Your task to perform on an android device: turn pop-ups off in chrome Image 0: 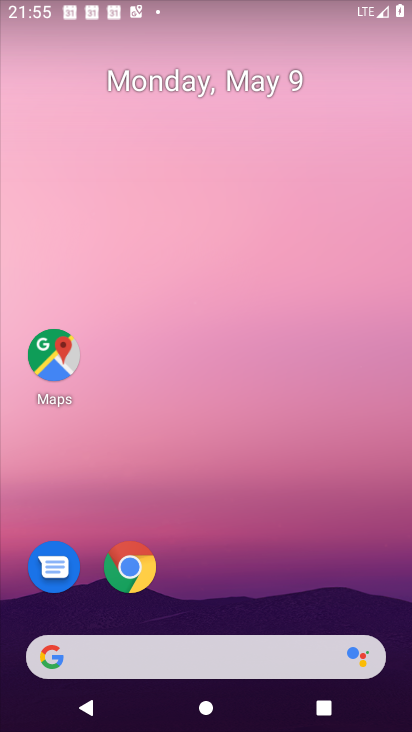
Step 0: drag from (258, 567) to (313, 181)
Your task to perform on an android device: turn pop-ups off in chrome Image 1: 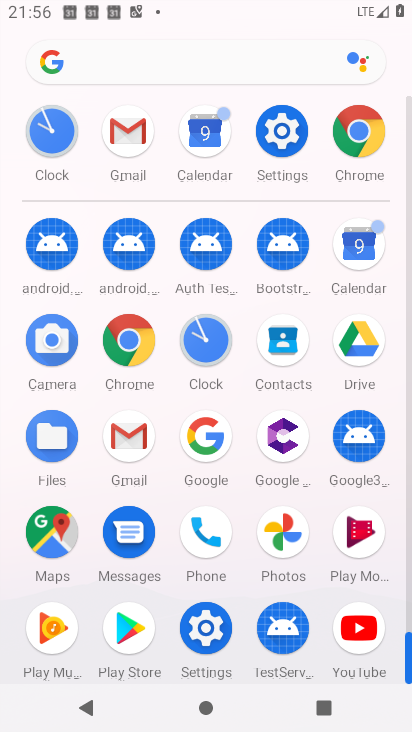
Step 1: click (286, 121)
Your task to perform on an android device: turn pop-ups off in chrome Image 2: 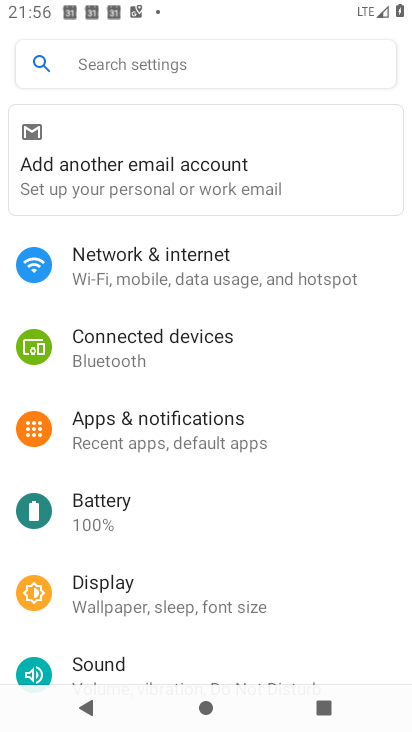
Step 2: press back button
Your task to perform on an android device: turn pop-ups off in chrome Image 3: 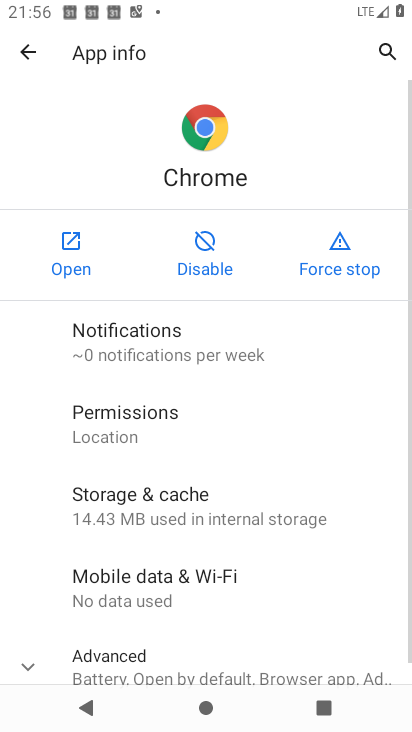
Step 3: click (37, 263)
Your task to perform on an android device: turn pop-ups off in chrome Image 4: 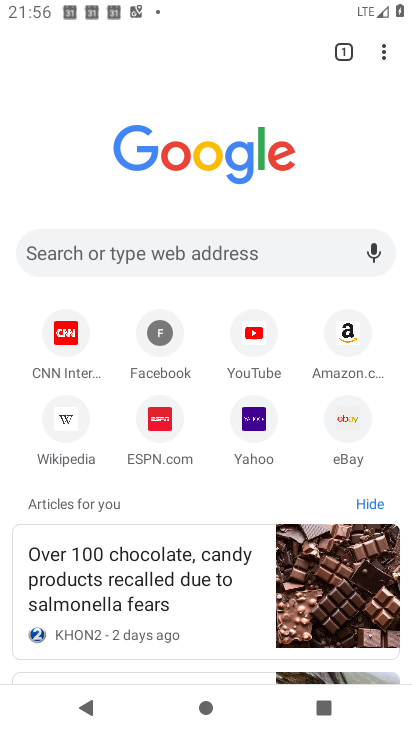
Step 4: drag from (214, 532) to (246, 221)
Your task to perform on an android device: turn pop-ups off in chrome Image 5: 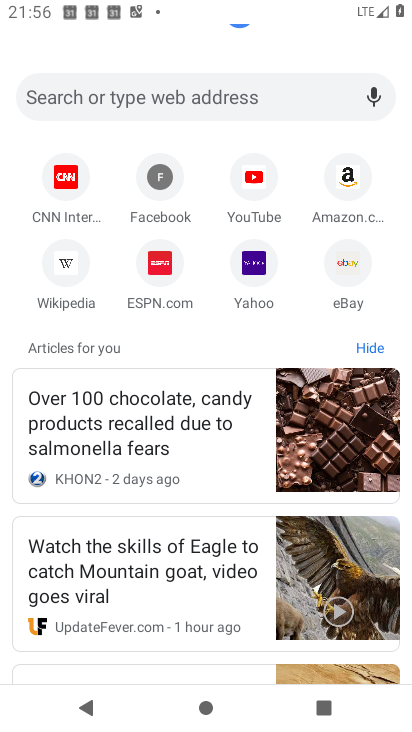
Step 5: drag from (314, 176) to (267, 622)
Your task to perform on an android device: turn pop-ups off in chrome Image 6: 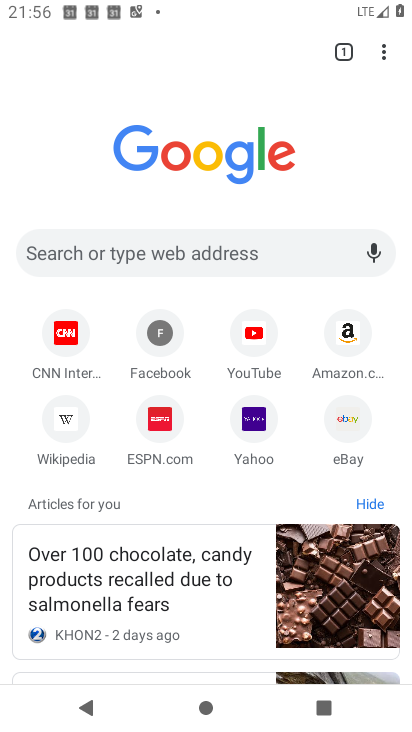
Step 6: click (382, 52)
Your task to perform on an android device: turn pop-ups off in chrome Image 7: 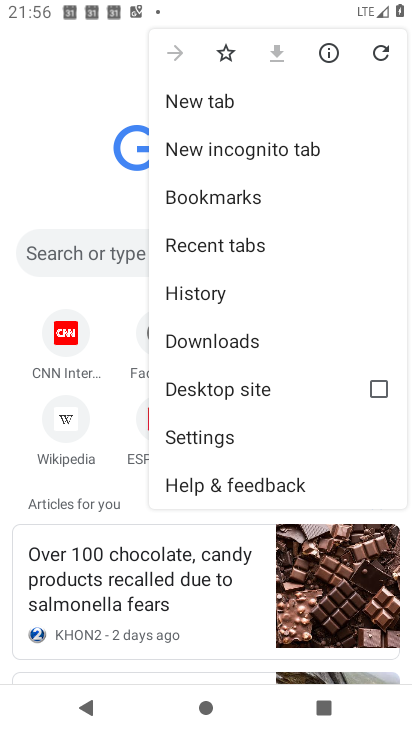
Step 7: click (220, 425)
Your task to perform on an android device: turn pop-ups off in chrome Image 8: 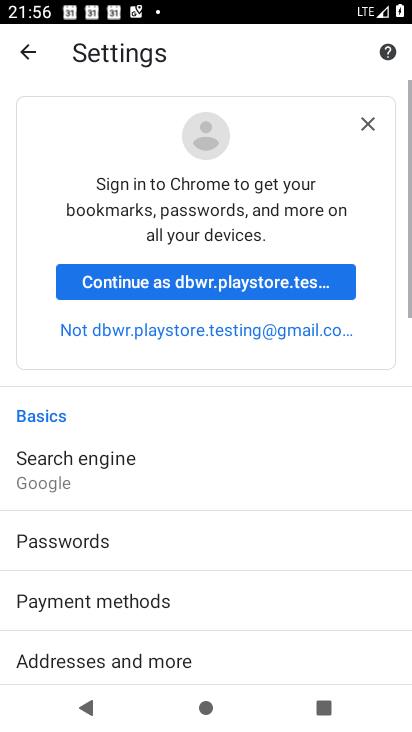
Step 8: drag from (152, 629) to (286, 290)
Your task to perform on an android device: turn pop-ups off in chrome Image 9: 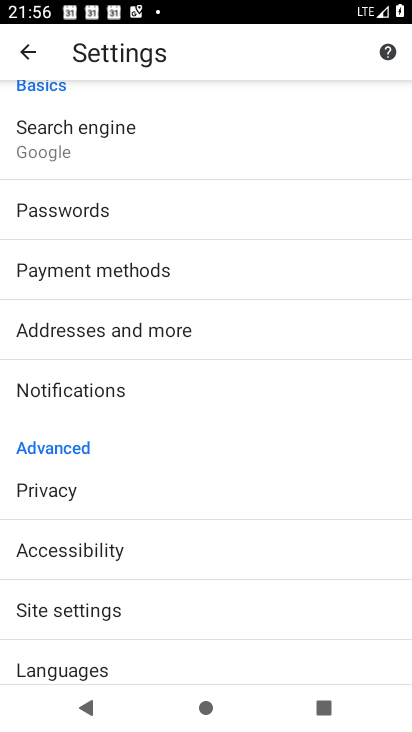
Step 9: click (135, 605)
Your task to perform on an android device: turn pop-ups off in chrome Image 10: 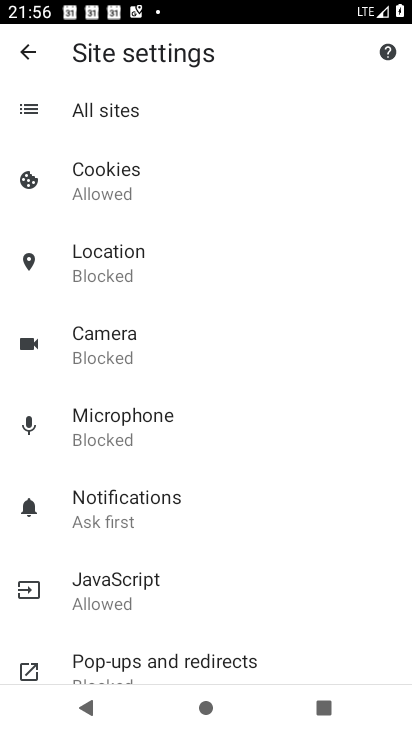
Step 10: click (127, 649)
Your task to perform on an android device: turn pop-ups off in chrome Image 11: 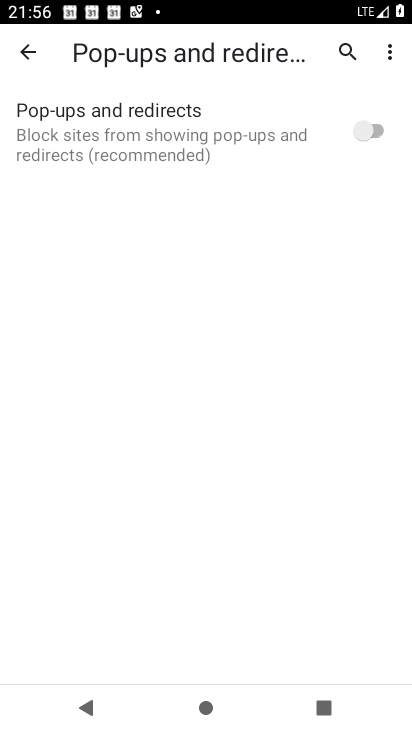
Step 11: task complete